Your task to perform on an android device: Add razer blade to the cart on target, then select checkout. Image 0: 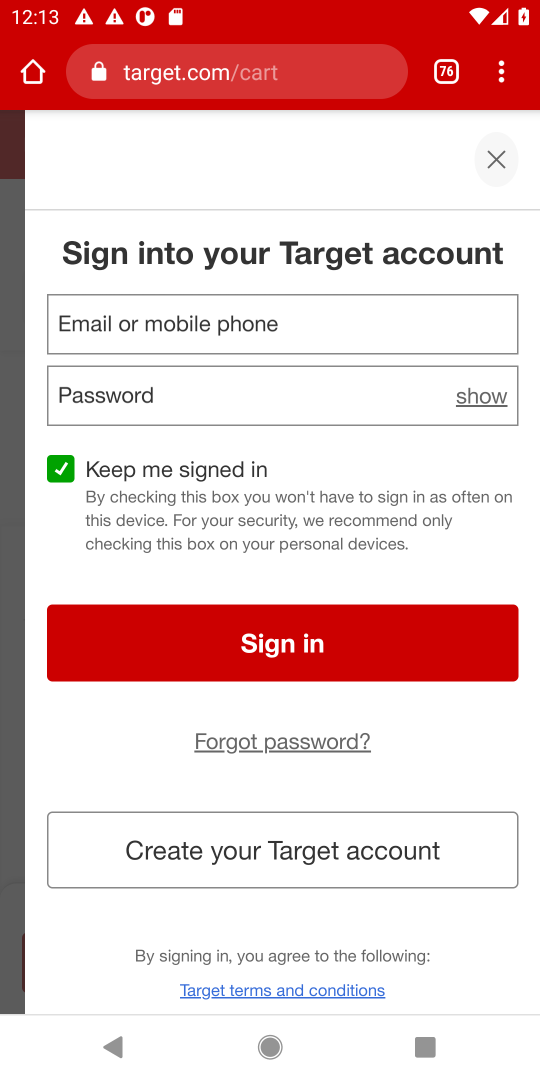
Step 0: press home button
Your task to perform on an android device: Add razer blade to the cart on target, then select checkout. Image 1: 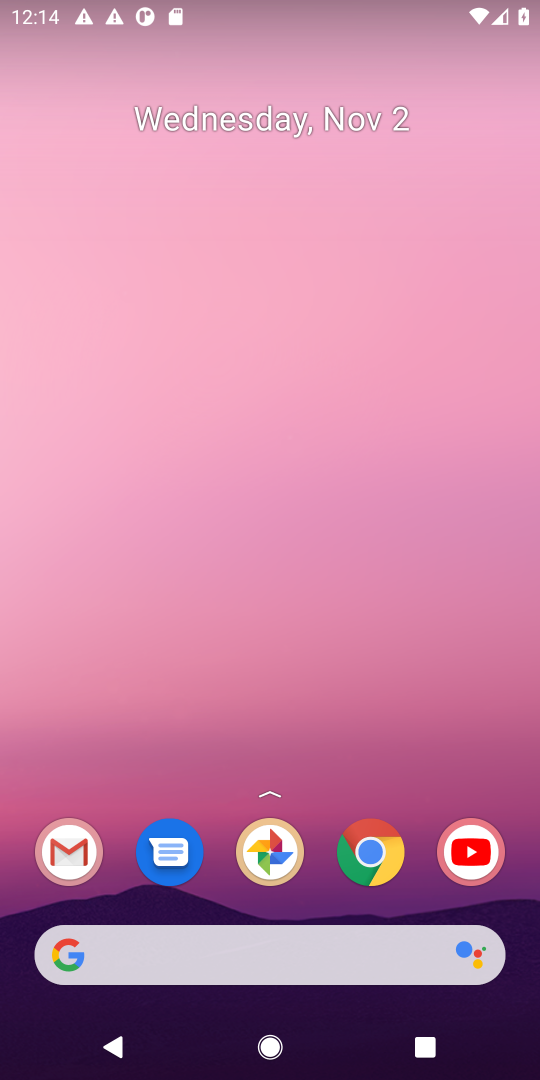
Step 1: click (67, 948)
Your task to perform on an android device: Add razer blade to the cart on target, then select checkout. Image 2: 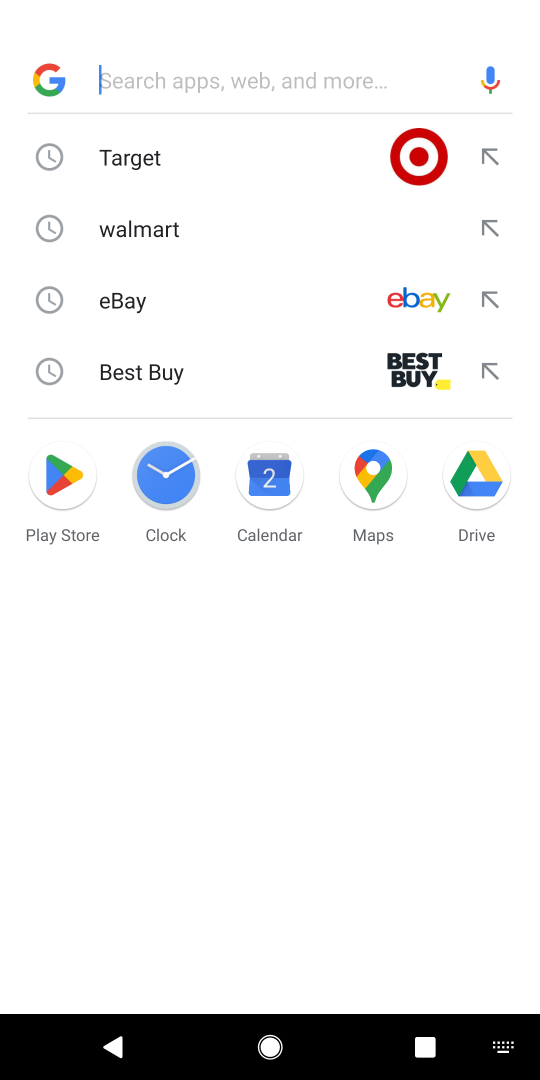
Step 2: click (420, 134)
Your task to perform on an android device: Add razer blade to the cart on target, then select checkout. Image 3: 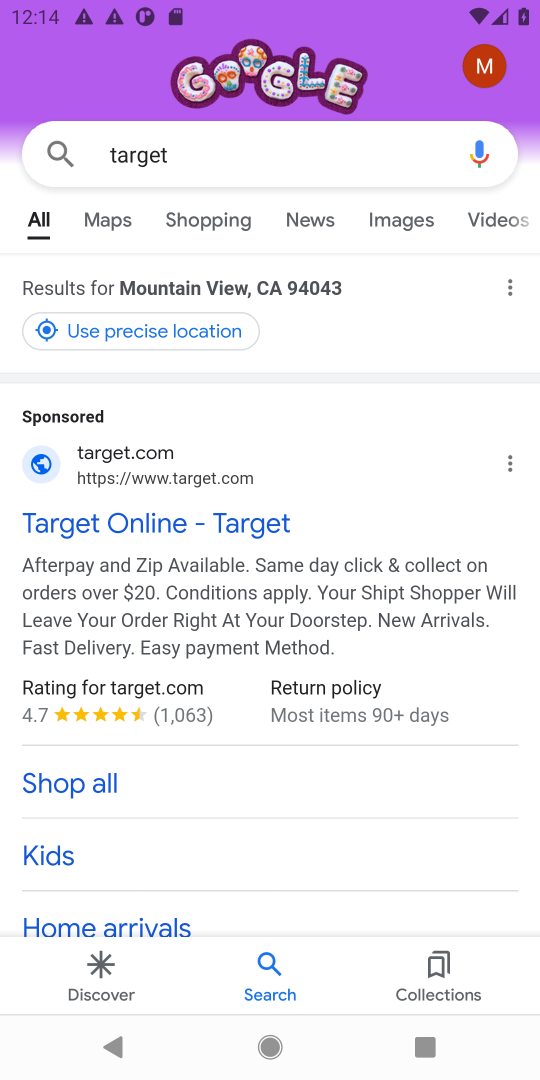
Step 3: drag from (242, 714) to (235, 295)
Your task to perform on an android device: Add razer blade to the cart on target, then select checkout. Image 4: 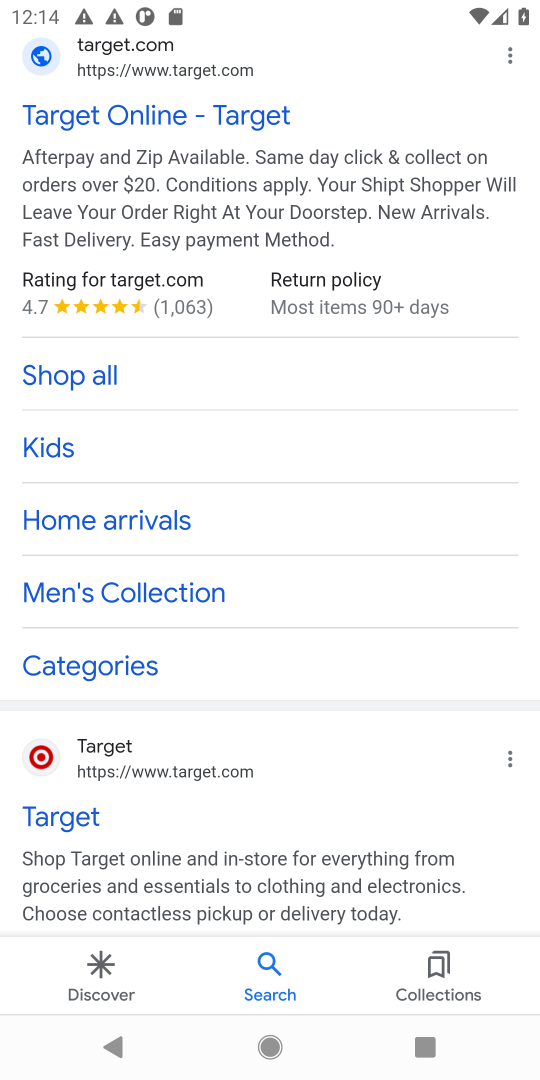
Step 4: click (75, 808)
Your task to perform on an android device: Add razer blade to the cart on target, then select checkout. Image 5: 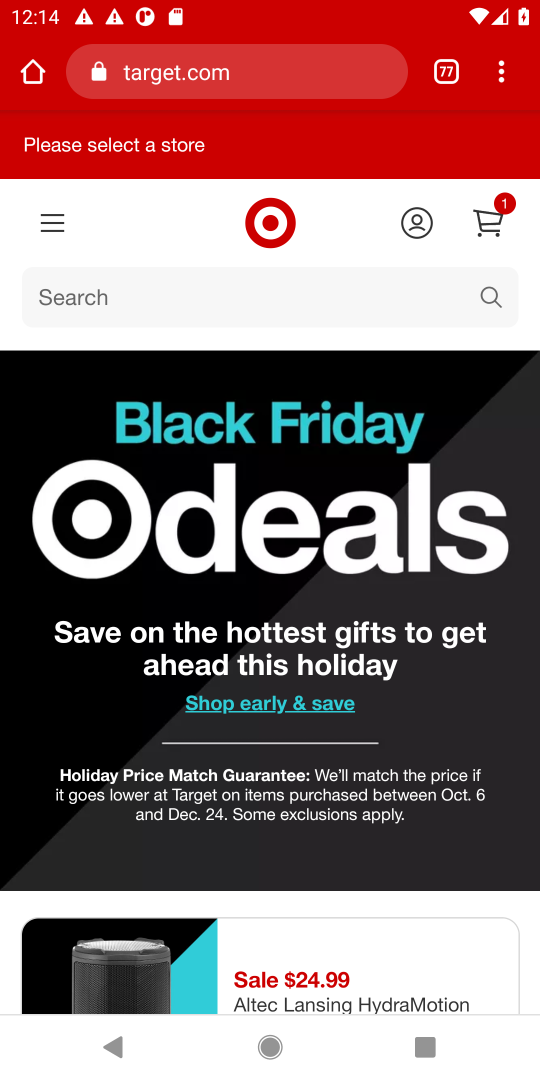
Step 5: click (491, 219)
Your task to perform on an android device: Add razer blade to the cart on target, then select checkout. Image 6: 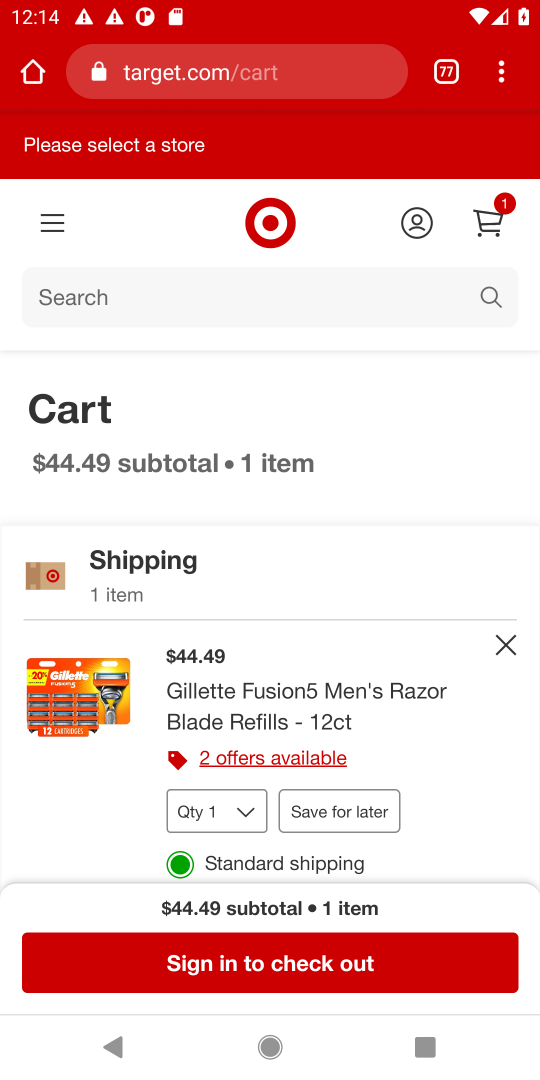
Step 6: click (309, 971)
Your task to perform on an android device: Add razer blade to the cart on target, then select checkout. Image 7: 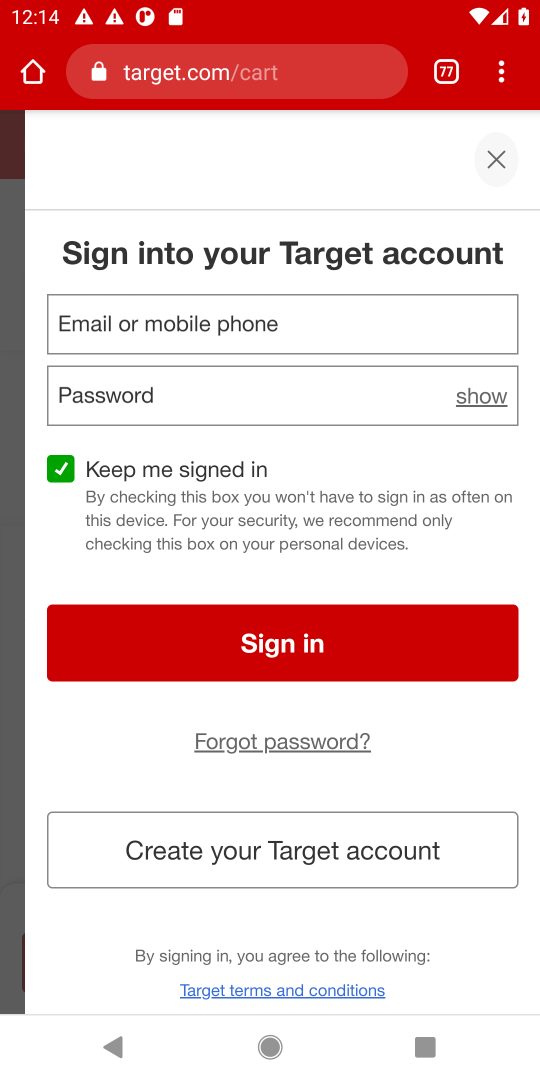
Step 7: task complete